Your task to perform on an android device: find photos in the google photos app Image 0: 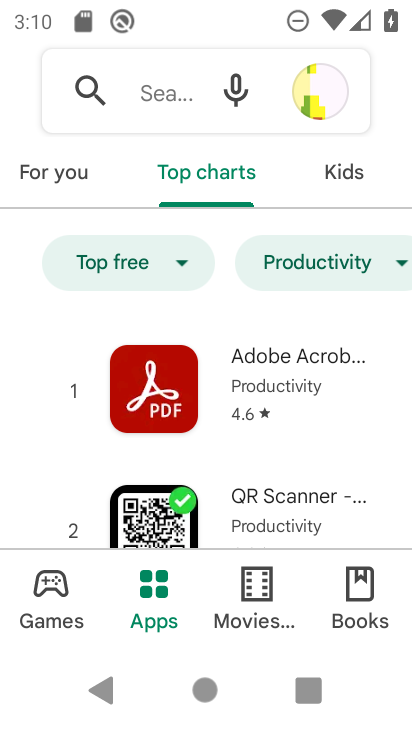
Step 0: press home button
Your task to perform on an android device: find photos in the google photos app Image 1: 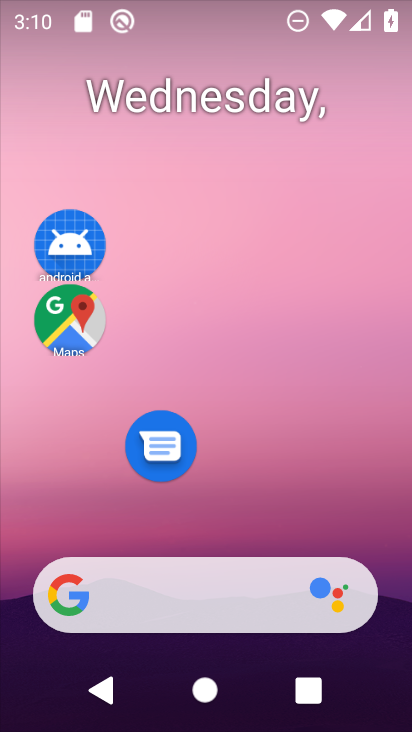
Step 1: drag from (292, 413) to (306, 135)
Your task to perform on an android device: find photos in the google photos app Image 2: 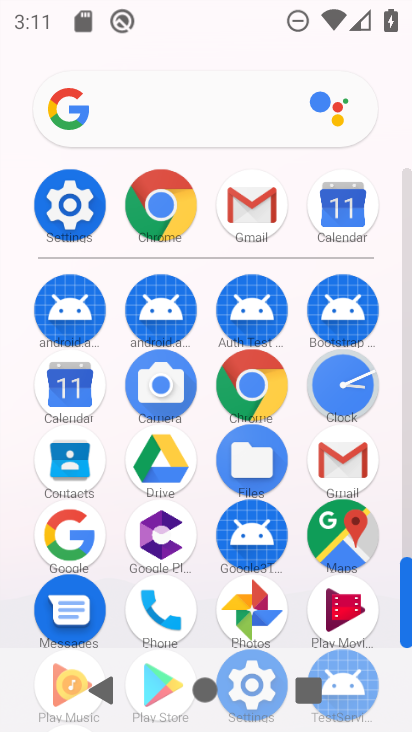
Step 2: click (242, 616)
Your task to perform on an android device: find photos in the google photos app Image 3: 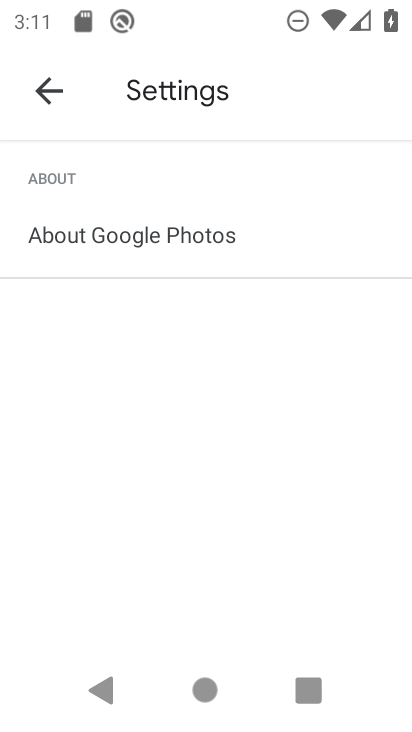
Step 3: click (40, 109)
Your task to perform on an android device: find photos in the google photos app Image 4: 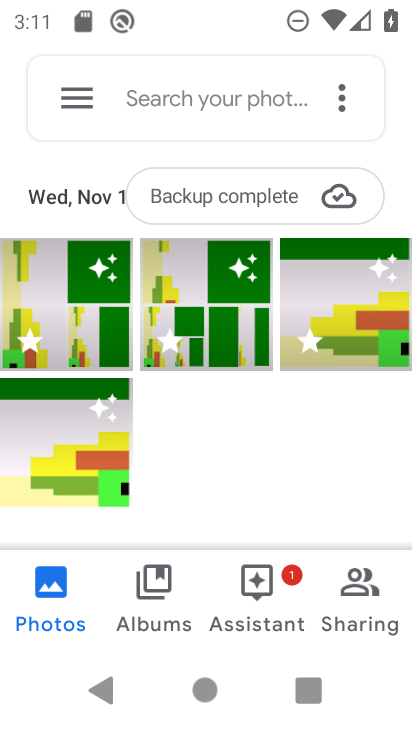
Step 4: task complete